Your task to perform on an android device: turn off data saver in the chrome app Image 0: 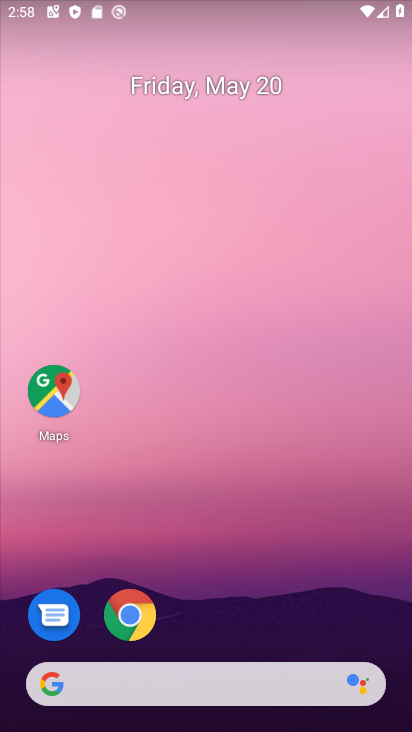
Step 0: drag from (305, 584) to (255, 296)
Your task to perform on an android device: turn off data saver in the chrome app Image 1: 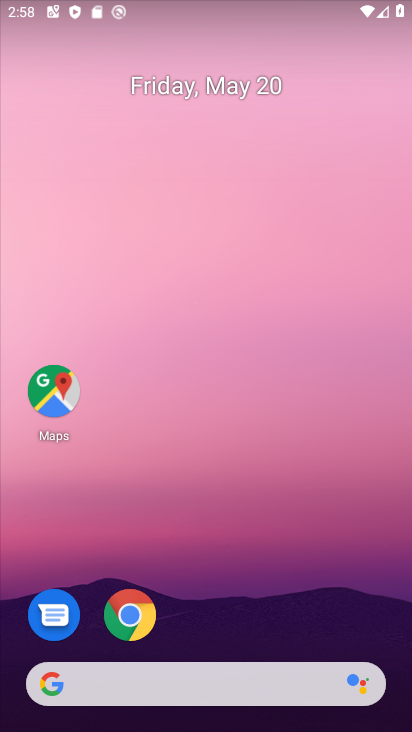
Step 1: drag from (217, 687) to (237, 286)
Your task to perform on an android device: turn off data saver in the chrome app Image 2: 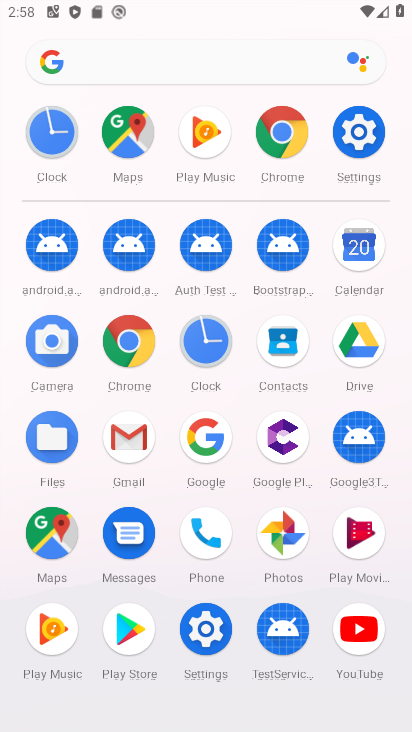
Step 2: click (125, 344)
Your task to perform on an android device: turn off data saver in the chrome app Image 3: 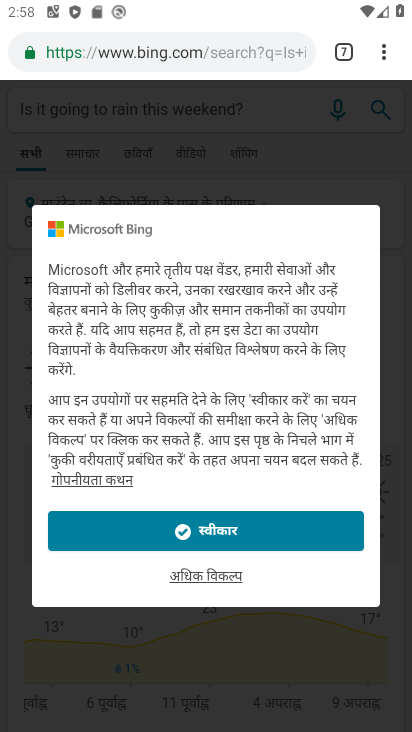
Step 3: click (374, 54)
Your task to perform on an android device: turn off data saver in the chrome app Image 4: 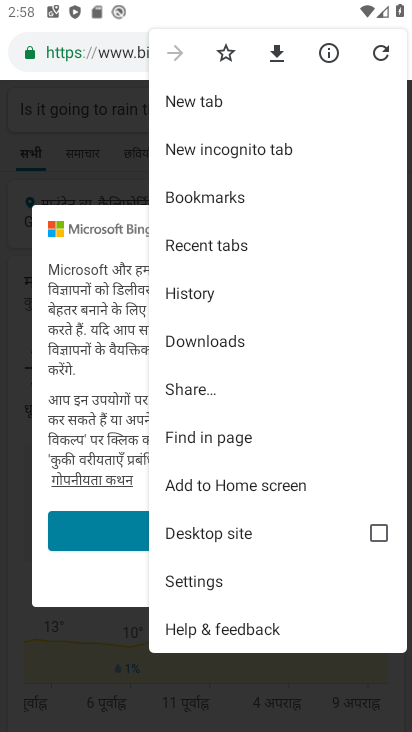
Step 4: click (205, 580)
Your task to perform on an android device: turn off data saver in the chrome app Image 5: 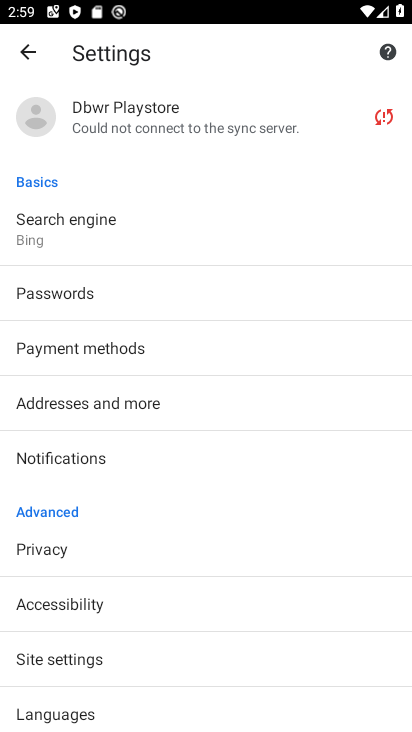
Step 5: drag from (92, 652) to (144, 456)
Your task to perform on an android device: turn off data saver in the chrome app Image 6: 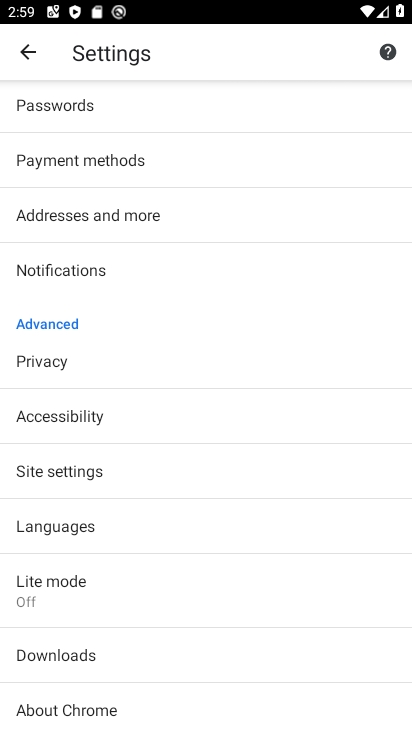
Step 6: click (95, 601)
Your task to perform on an android device: turn off data saver in the chrome app Image 7: 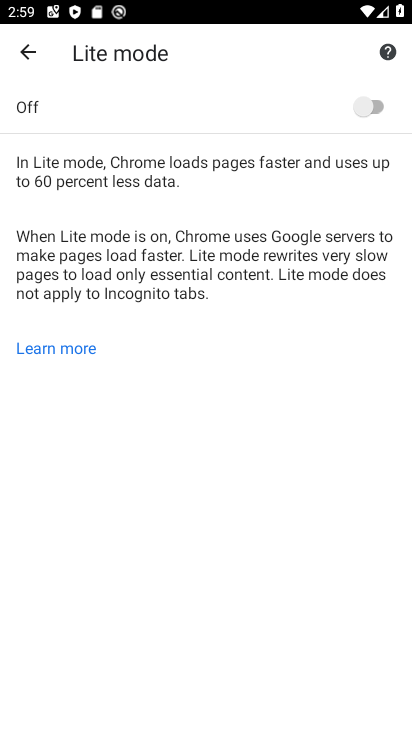
Step 7: task complete